Your task to perform on an android device: Empty the shopping cart on newegg. Search for "macbook air" on newegg, select the first entry, add it to the cart, then select checkout. Image 0: 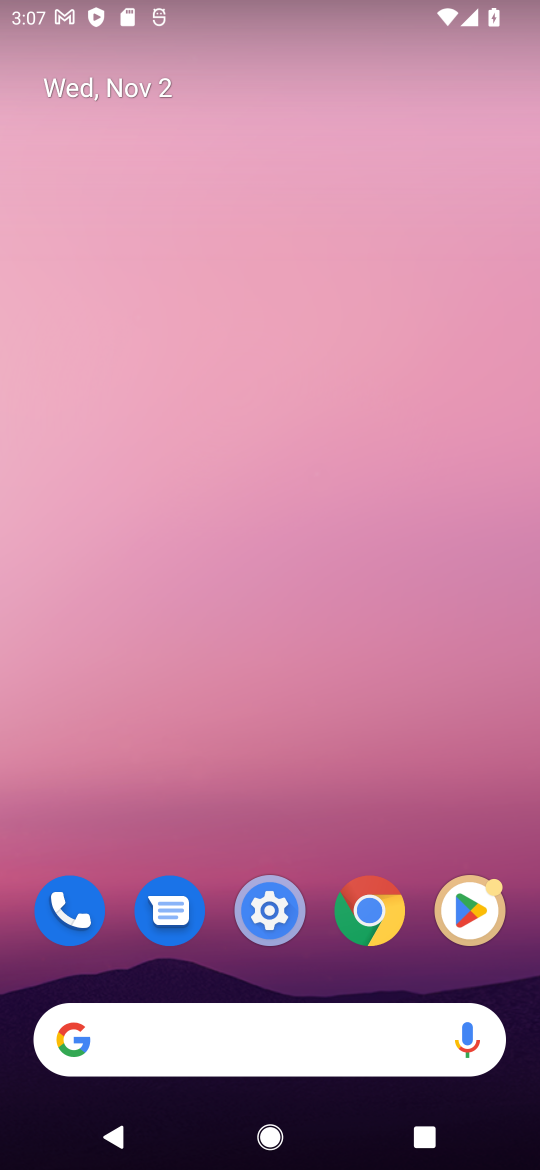
Step 0: click (375, 923)
Your task to perform on an android device: Empty the shopping cart on newegg. Search for "macbook air" on newegg, select the first entry, add it to the cart, then select checkout. Image 1: 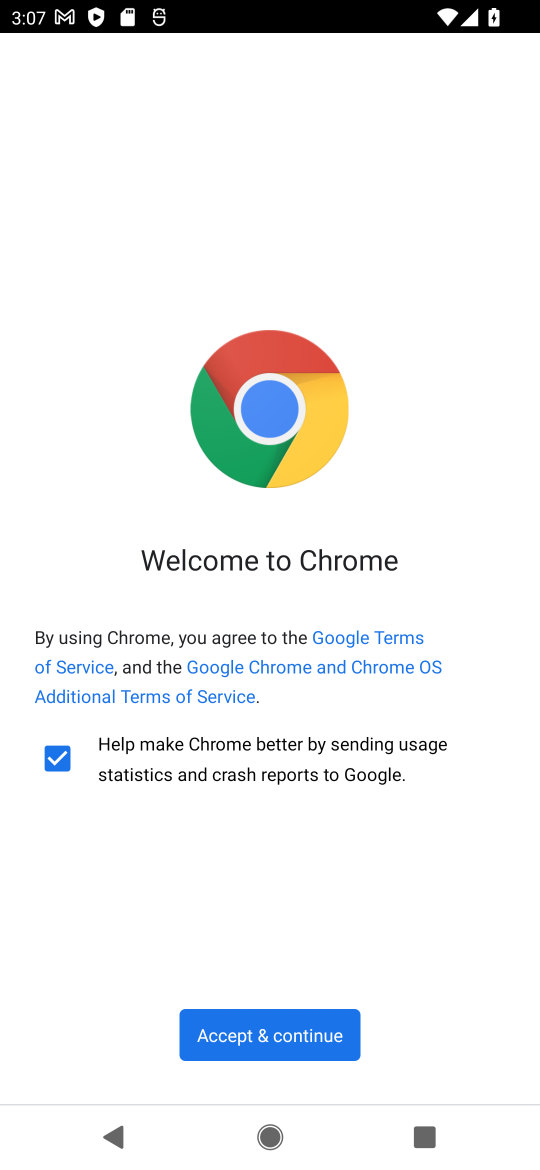
Step 1: click (286, 1025)
Your task to perform on an android device: Empty the shopping cart on newegg. Search for "macbook air" on newegg, select the first entry, add it to the cart, then select checkout. Image 2: 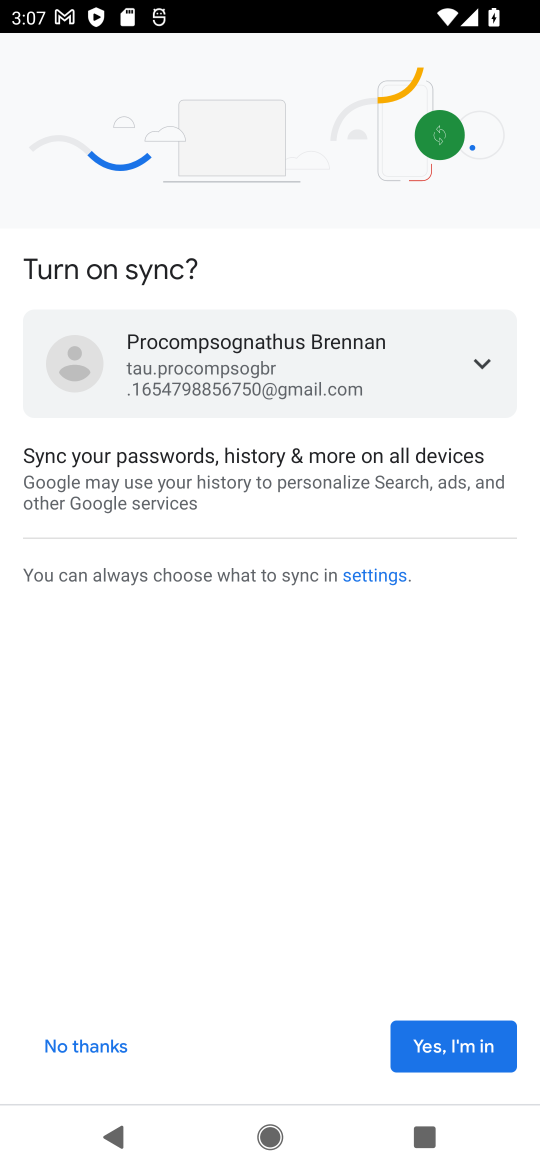
Step 2: click (410, 1047)
Your task to perform on an android device: Empty the shopping cart on newegg. Search for "macbook air" on newegg, select the first entry, add it to the cart, then select checkout. Image 3: 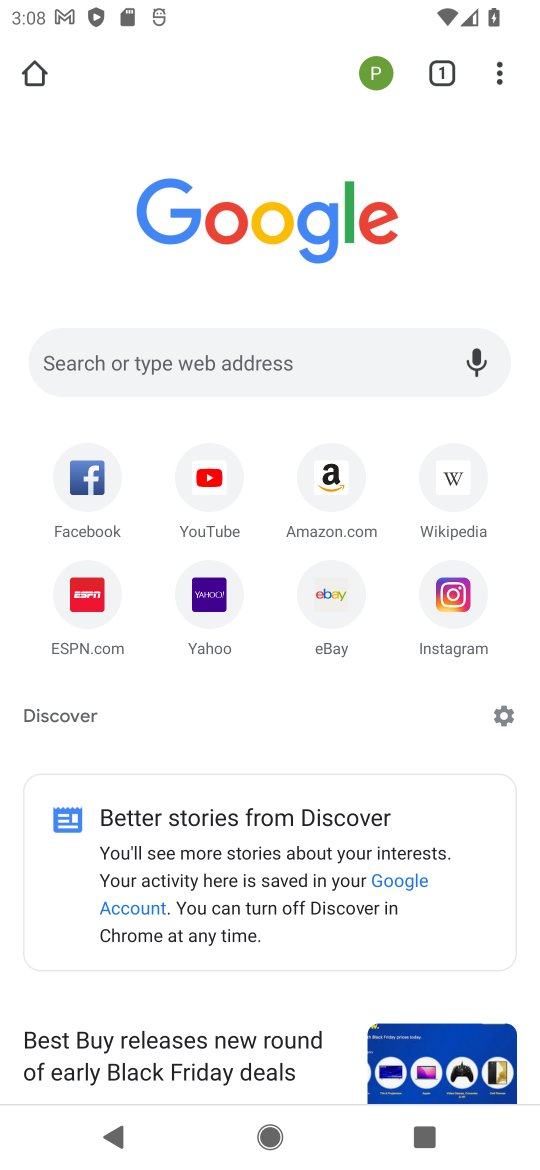
Step 3: click (281, 344)
Your task to perform on an android device: Empty the shopping cart on newegg. Search for "macbook air" on newegg, select the first entry, add it to the cart, then select checkout. Image 4: 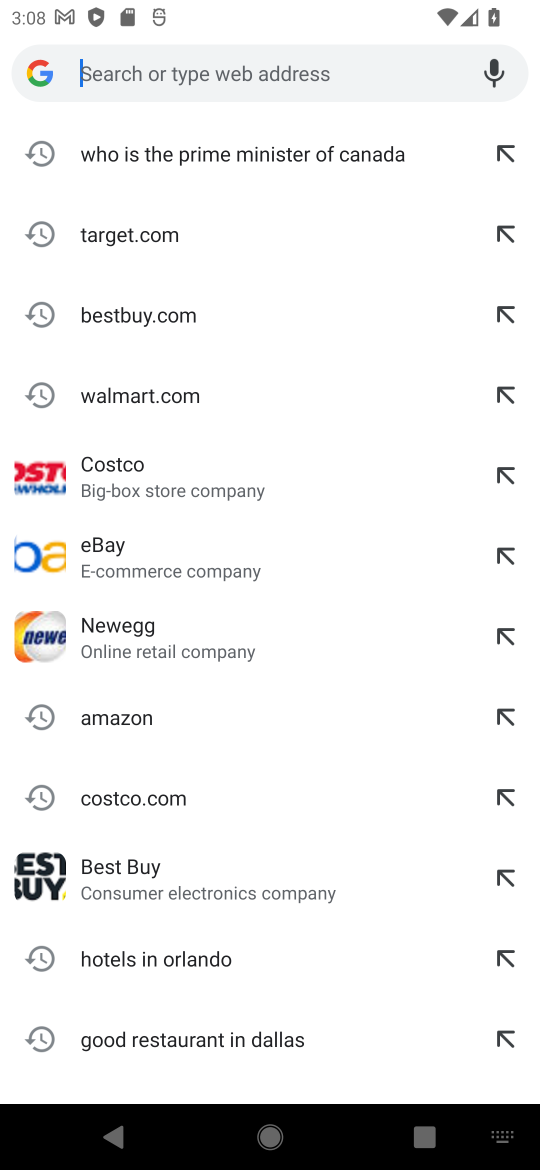
Step 4: click (92, 638)
Your task to perform on an android device: Empty the shopping cart on newegg. Search for "macbook air" on newegg, select the first entry, add it to the cart, then select checkout. Image 5: 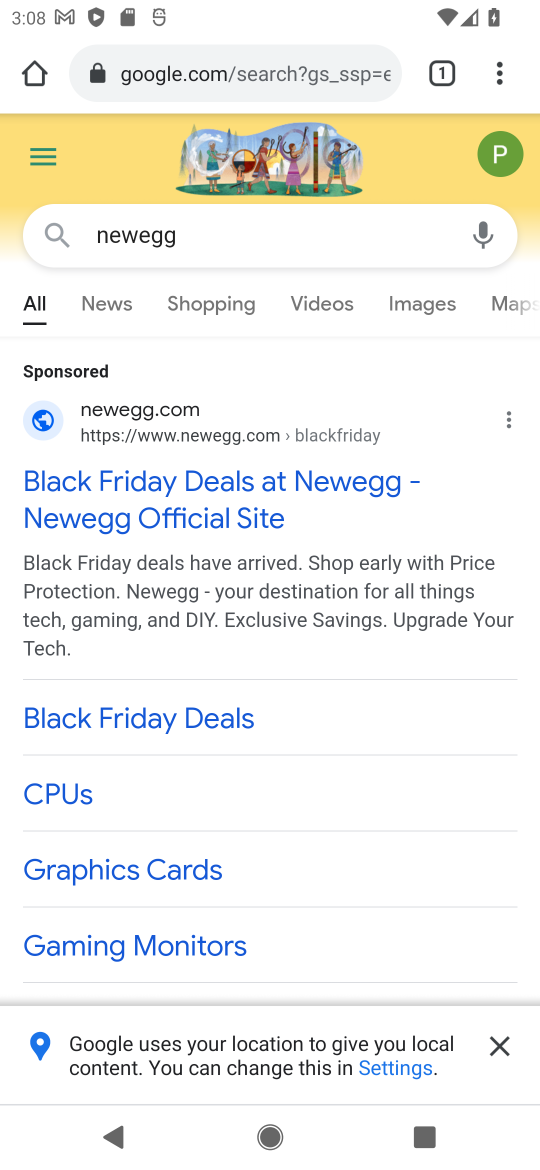
Step 5: drag from (150, 928) to (329, 516)
Your task to perform on an android device: Empty the shopping cart on newegg. Search for "macbook air" on newegg, select the first entry, add it to the cart, then select checkout. Image 6: 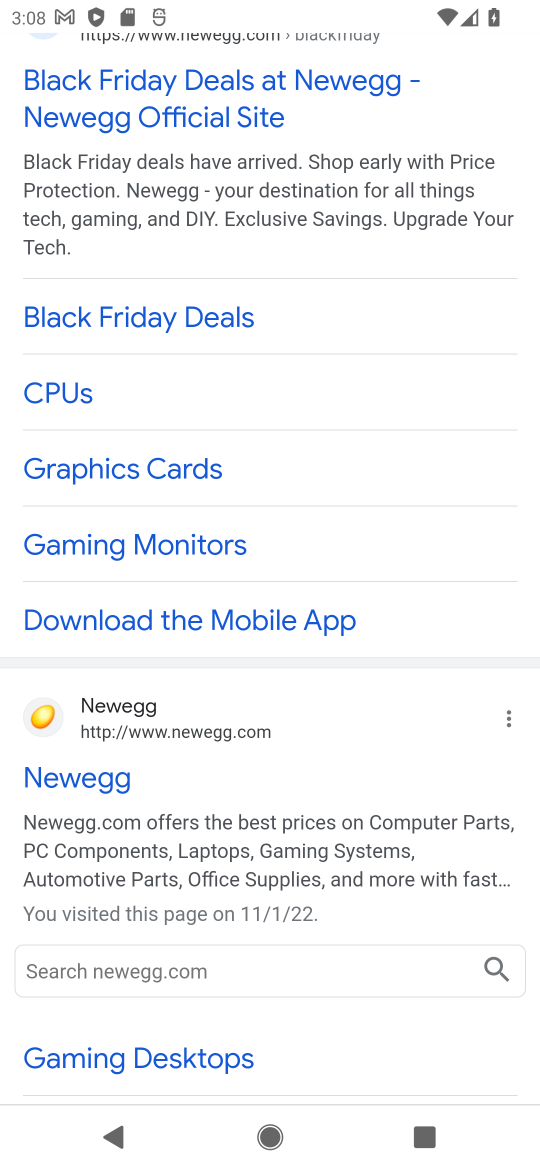
Step 6: click (155, 966)
Your task to perform on an android device: Empty the shopping cart on newegg. Search for "macbook air" on newegg, select the first entry, add it to the cart, then select checkout. Image 7: 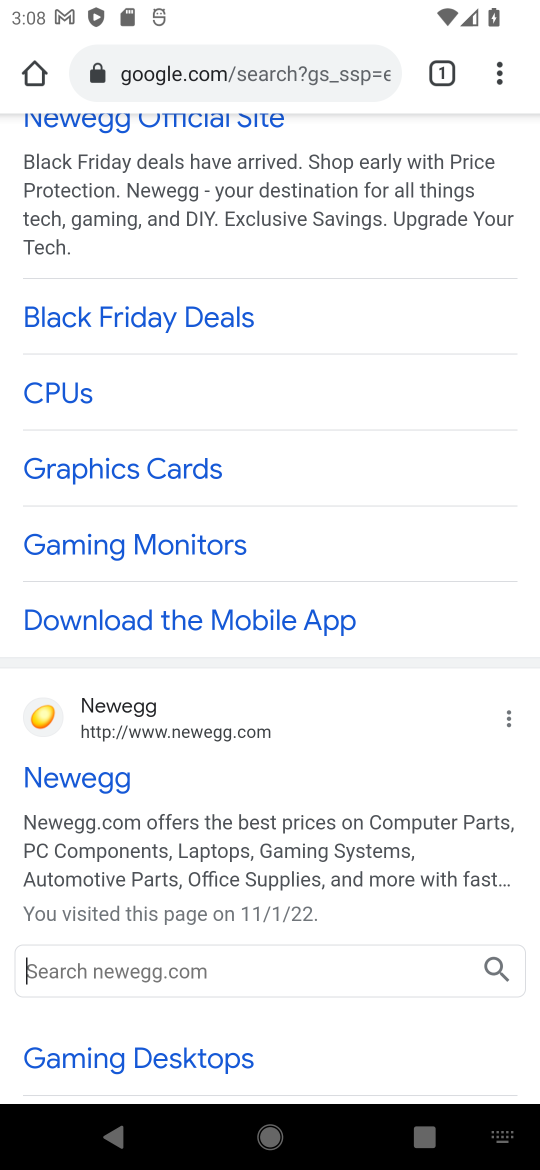
Step 7: type "macbook air"
Your task to perform on an android device: Empty the shopping cart on newegg. Search for "macbook air" on newegg, select the first entry, add it to the cart, then select checkout. Image 8: 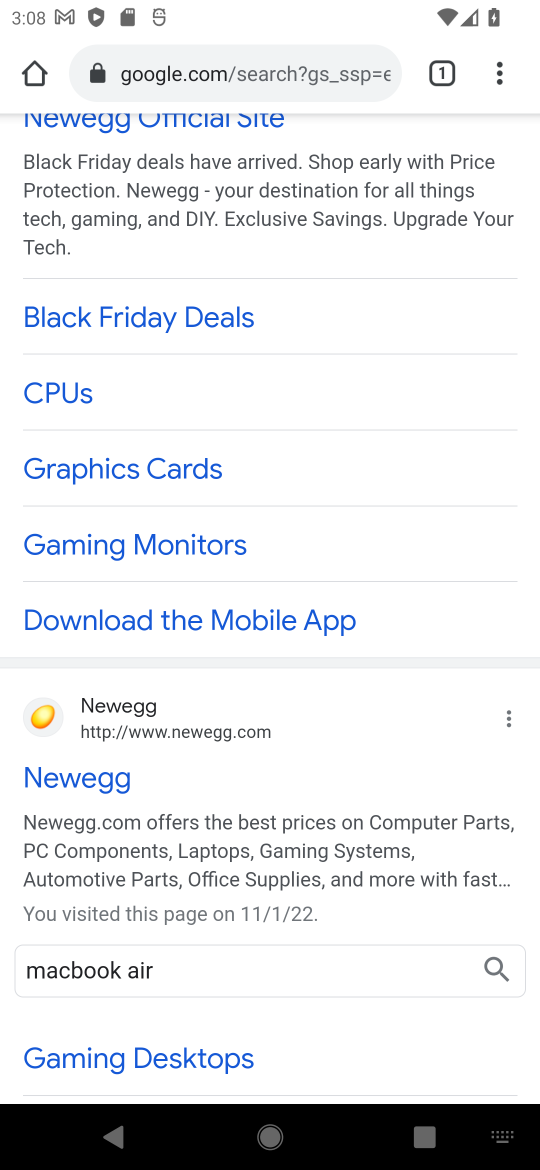
Step 8: click (507, 963)
Your task to perform on an android device: Empty the shopping cart on newegg. Search for "macbook air" on newegg, select the first entry, add it to the cart, then select checkout. Image 9: 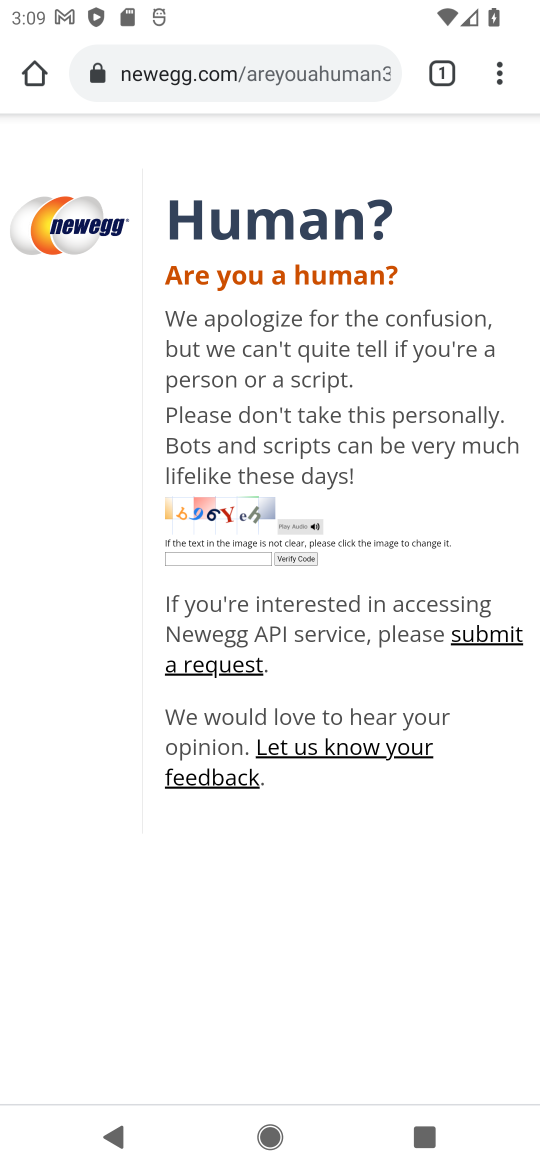
Step 9: click (211, 554)
Your task to perform on an android device: Empty the shopping cart on newegg. Search for "macbook air" on newegg, select the first entry, add it to the cart, then select checkout. Image 10: 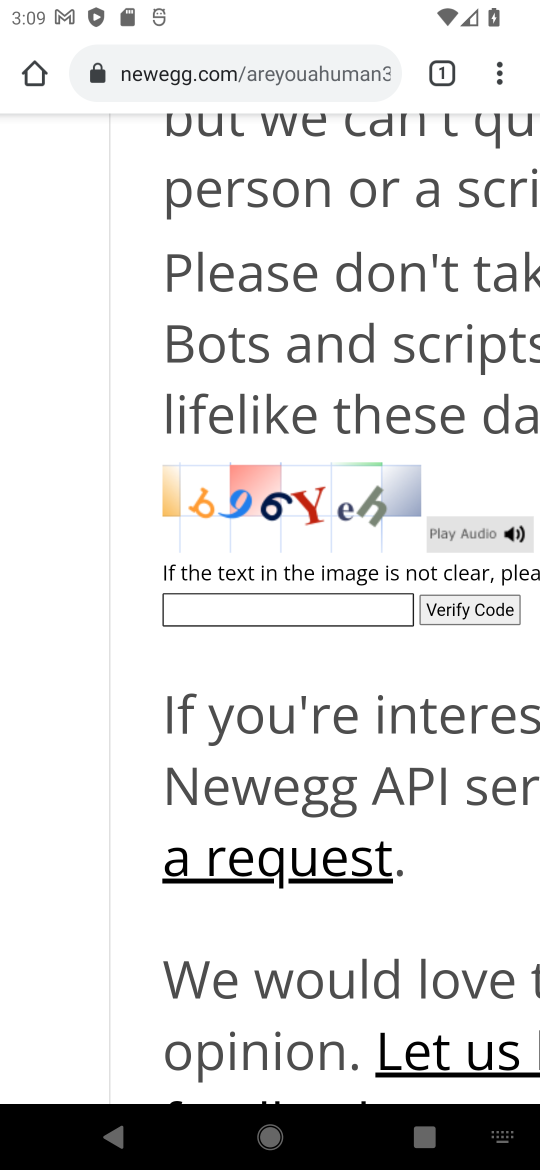
Step 10: type "b96Yeh"
Your task to perform on an android device: Empty the shopping cart on newegg. Search for "macbook air" on newegg, select the first entry, add it to the cart, then select checkout. Image 11: 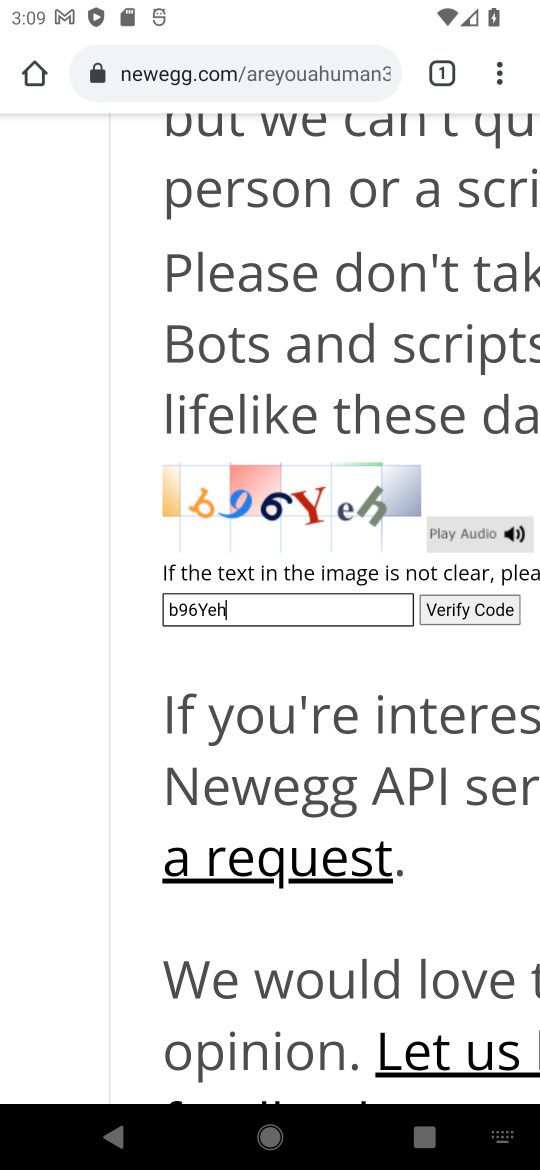
Step 11: click (490, 611)
Your task to perform on an android device: Empty the shopping cart on newegg. Search for "macbook air" on newegg, select the first entry, add it to the cart, then select checkout. Image 12: 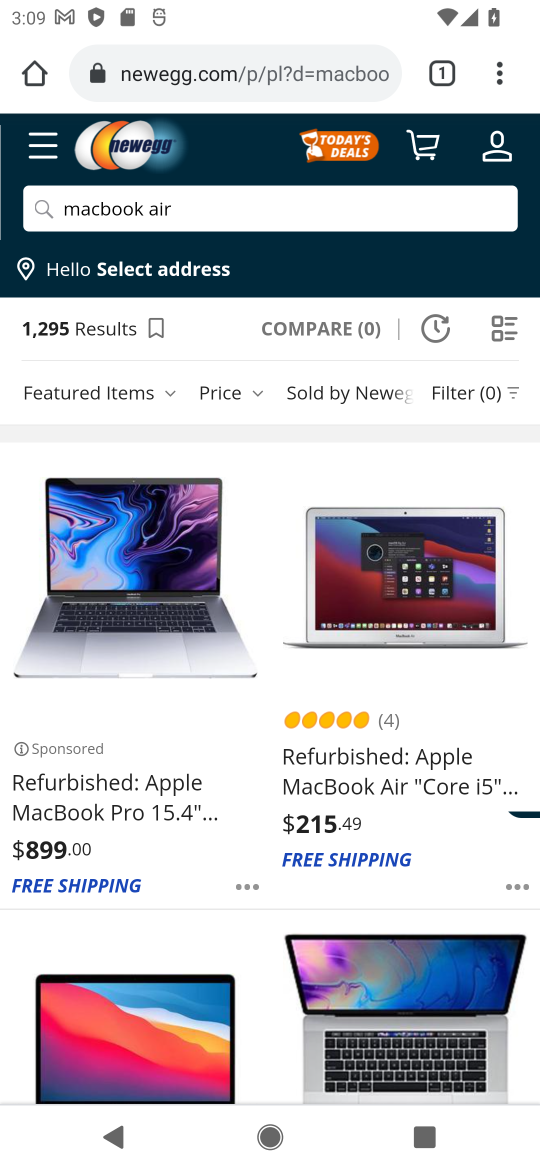
Step 12: click (393, 792)
Your task to perform on an android device: Empty the shopping cart on newegg. Search for "macbook air" on newegg, select the first entry, add it to the cart, then select checkout. Image 13: 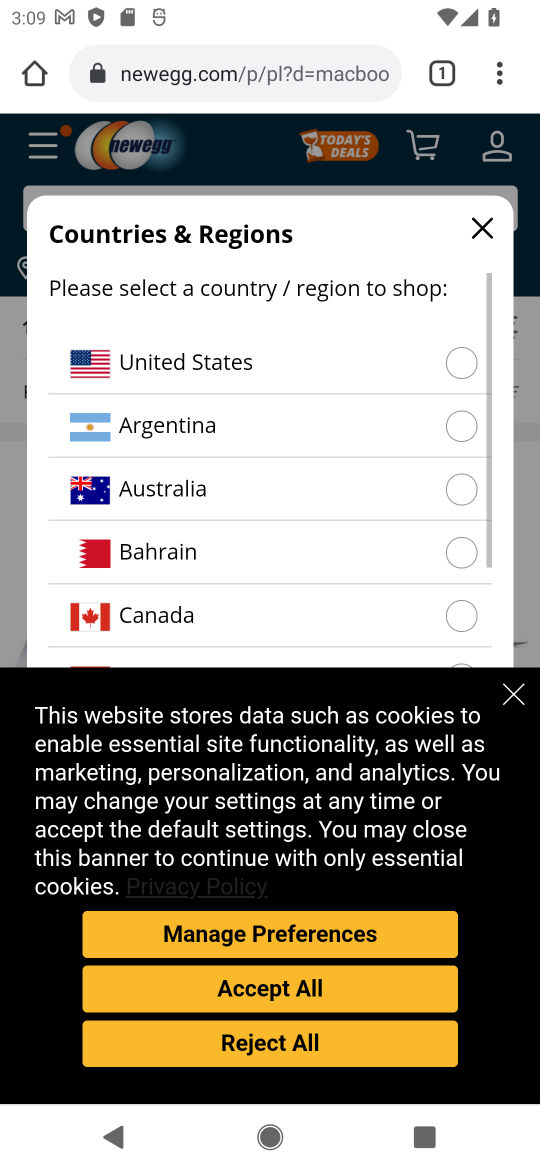
Step 13: click (516, 693)
Your task to perform on an android device: Empty the shopping cart on newegg. Search for "macbook air" on newegg, select the first entry, add it to the cart, then select checkout. Image 14: 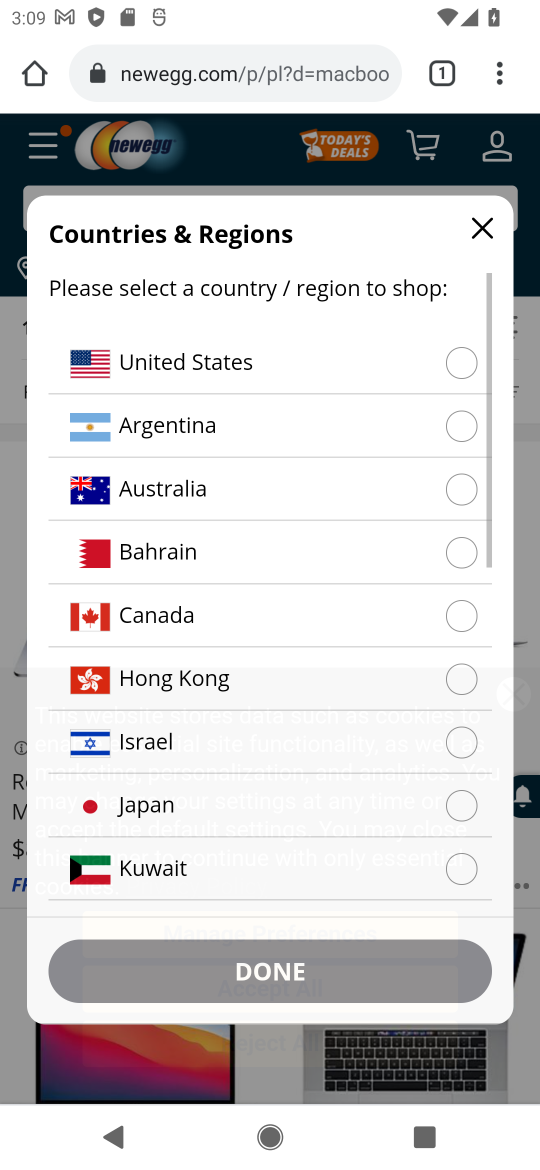
Step 14: click (460, 361)
Your task to perform on an android device: Empty the shopping cart on newegg. Search for "macbook air" on newegg, select the first entry, add it to the cart, then select checkout. Image 15: 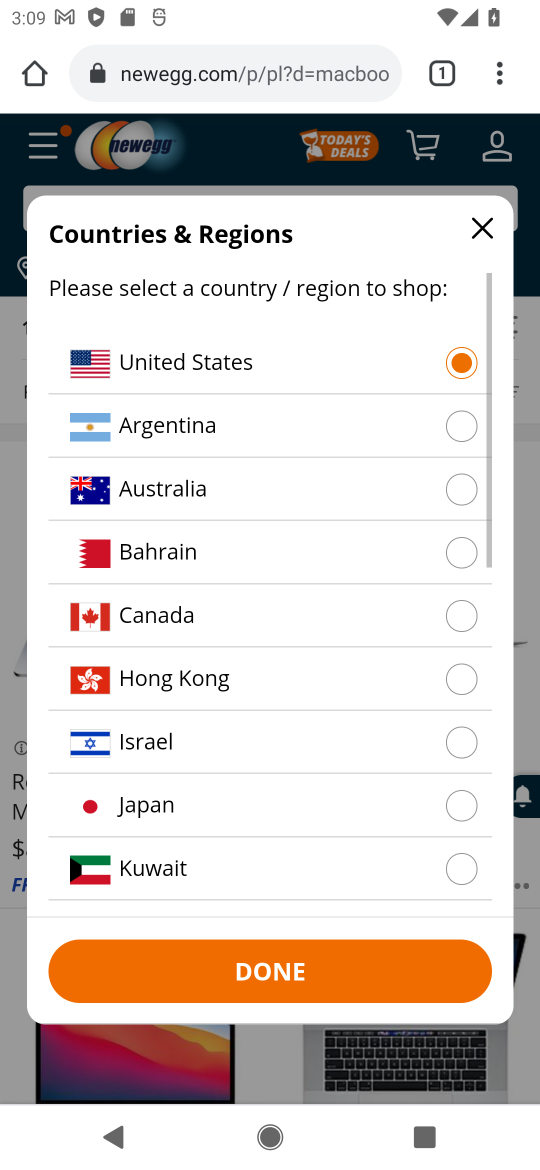
Step 15: click (266, 975)
Your task to perform on an android device: Empty the shopping cart on newegg. Search for "macbook air" on newegg, select the first entry, add it to the cart, then select checkout. Image 16: 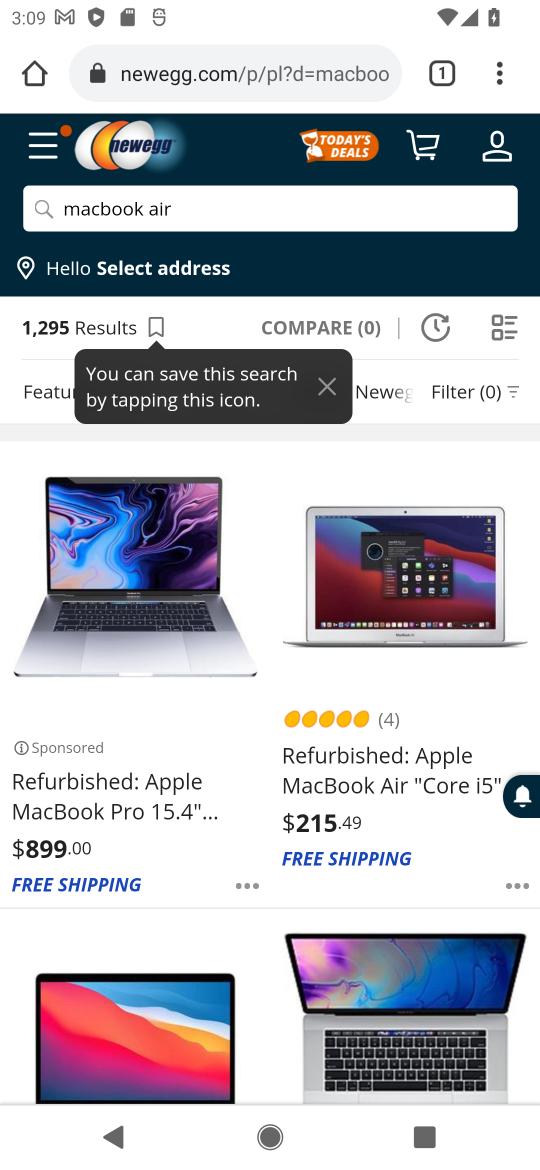
Step 16: click (112, 788)
Your task to perform on an android device: Empty the shopping cart on newegg. Search for "macbook air" on newegg, select the first entry, add it to the cart, then select checkout. Image 17: 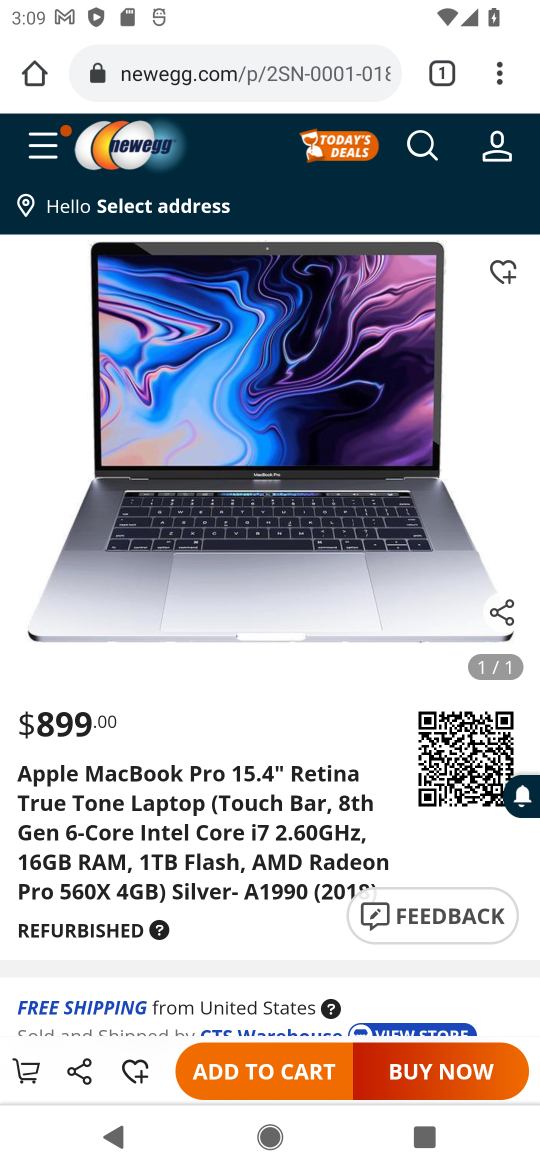
Step 17: click (281, 1077)
Your task to perform on an android device: Empty the shopping cart on newegg. Search for "macbook air" on newegg, select the first entry, add it to the cart, then select checkout. Image 18: 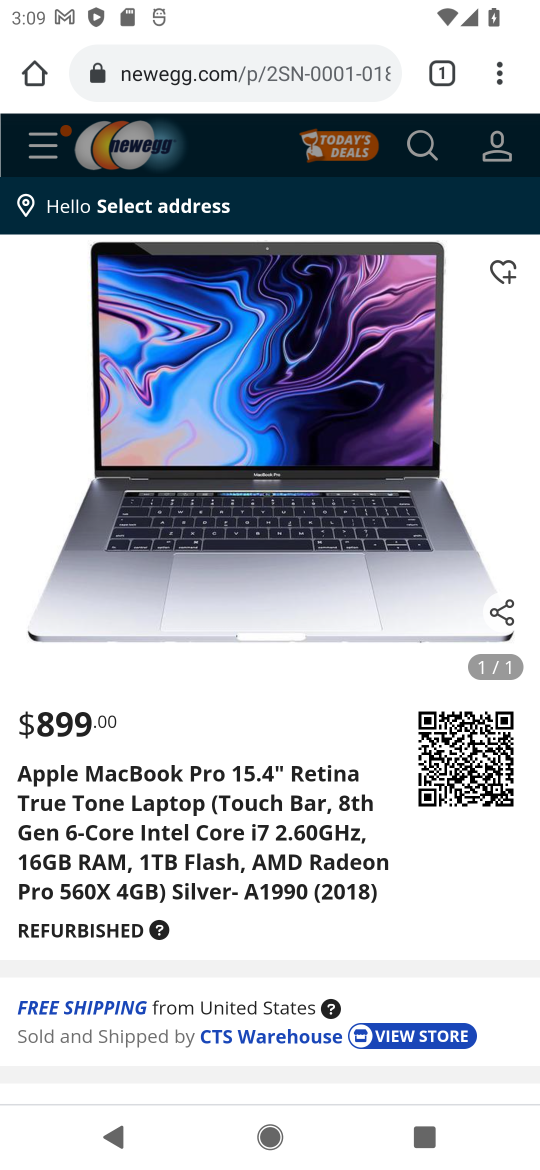
Step 18: task complete